Your task to perform on an android device: When is my next appointment? Image 0: 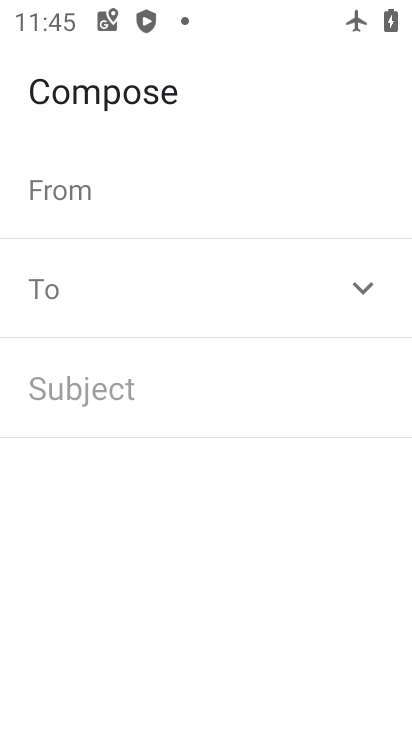
Step 0: drag from (369, 594) to (369, 83)
Your task to perform on an android device: When is my next appointment? Image 1: 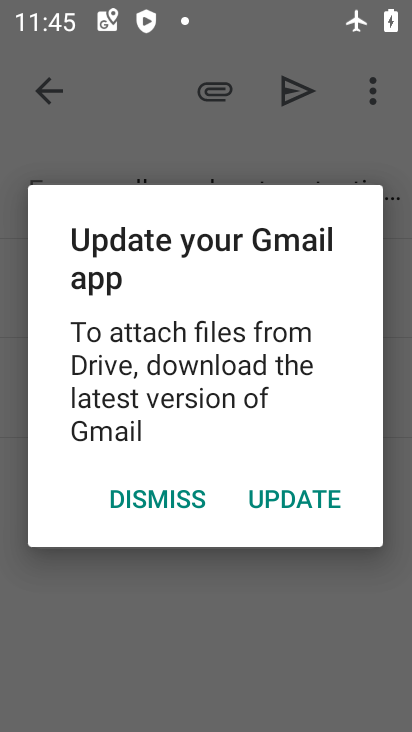
Step 1: task complete